Your task to perform on an android device: toggle improve location accuracy Image 0: 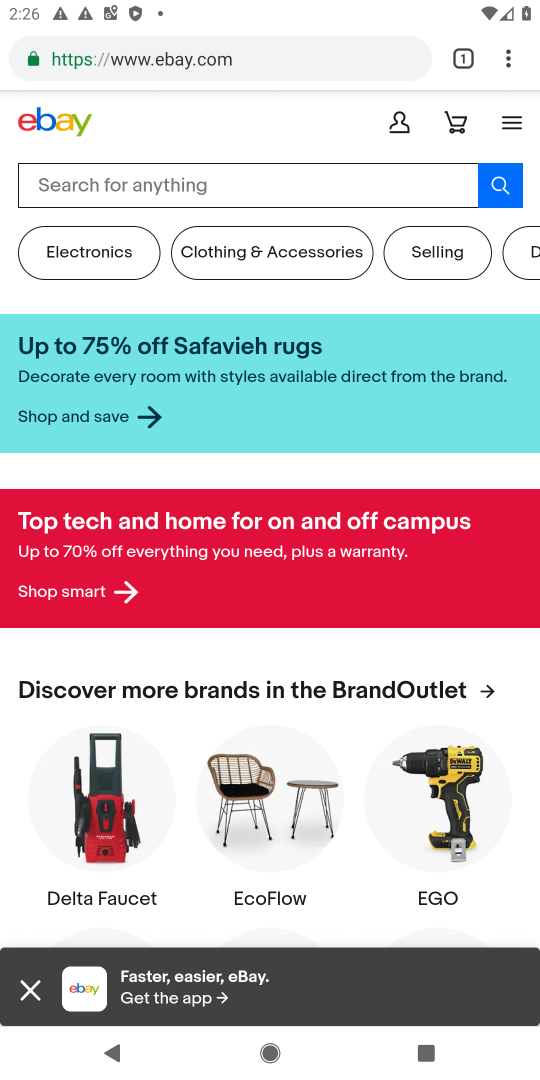
Step 0: press home button
Your task to perform on an android device: toggle improve location accuracy Image 1: 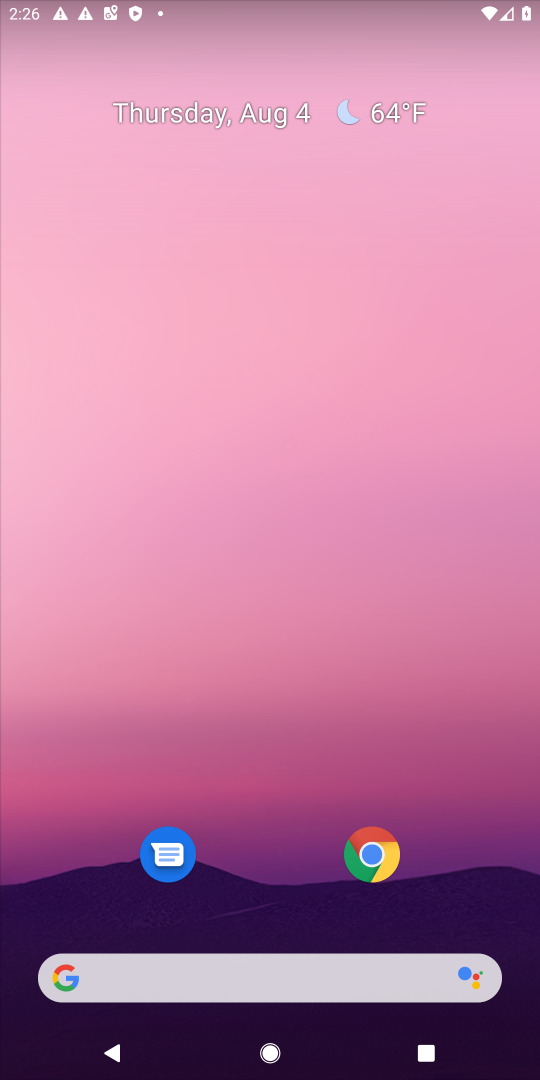
Step 1: drag from (185, 786) to (180, 421)
Your task to perform on an android device: toggle improve location accuracy Image 2: 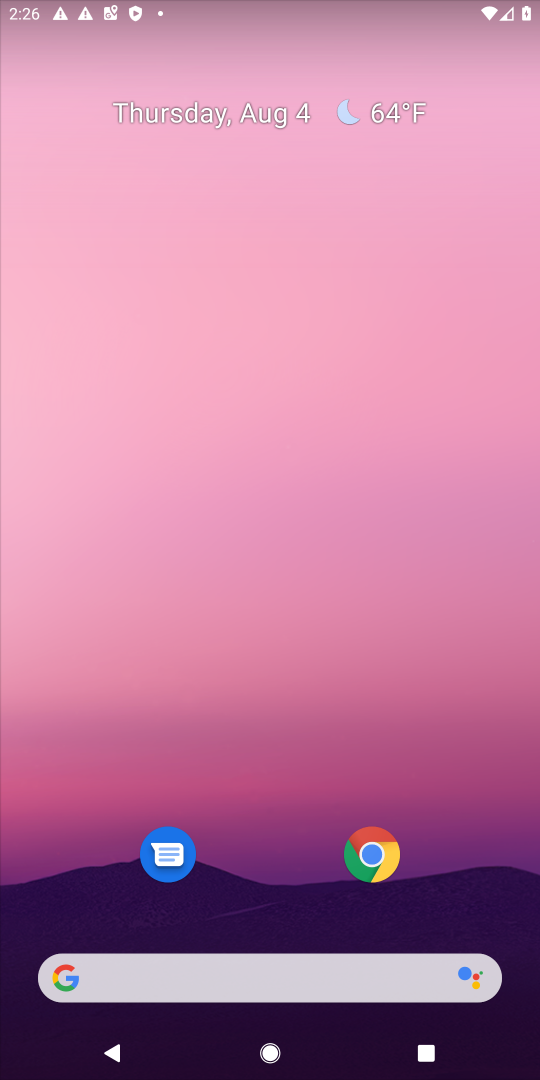
Step 2: drag from (342, 913) to (323, 181)
Your task to perform on an android device: toggle improve location accuracy Image 3: 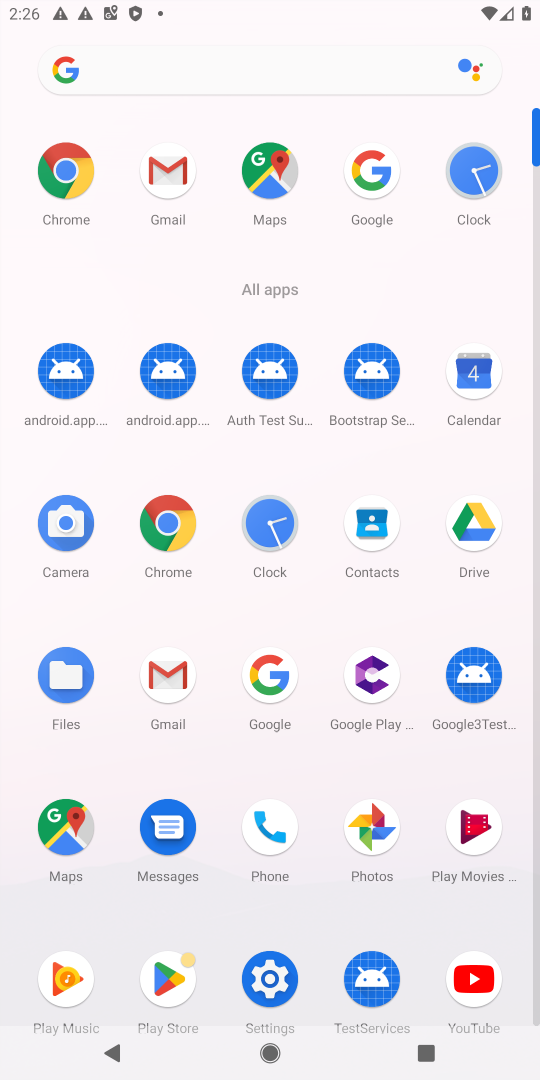
Step 3: click (272, 981)
Your task to perform on an android device: toggle improve location accuracy Image 4: 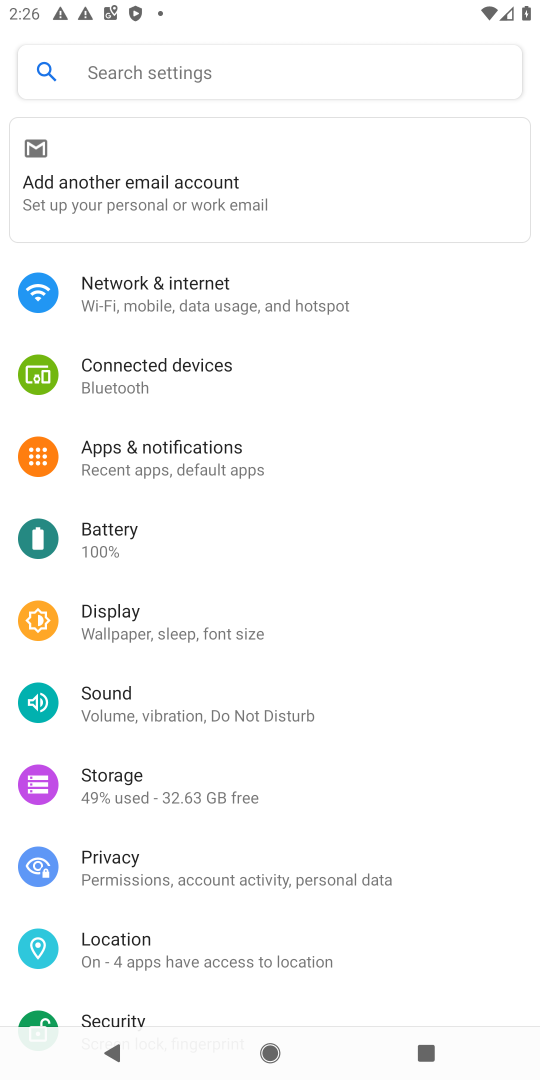
Step 4: click (122, 954)
Your task to perform on an android device: toggle improve location accuracy Image 5: 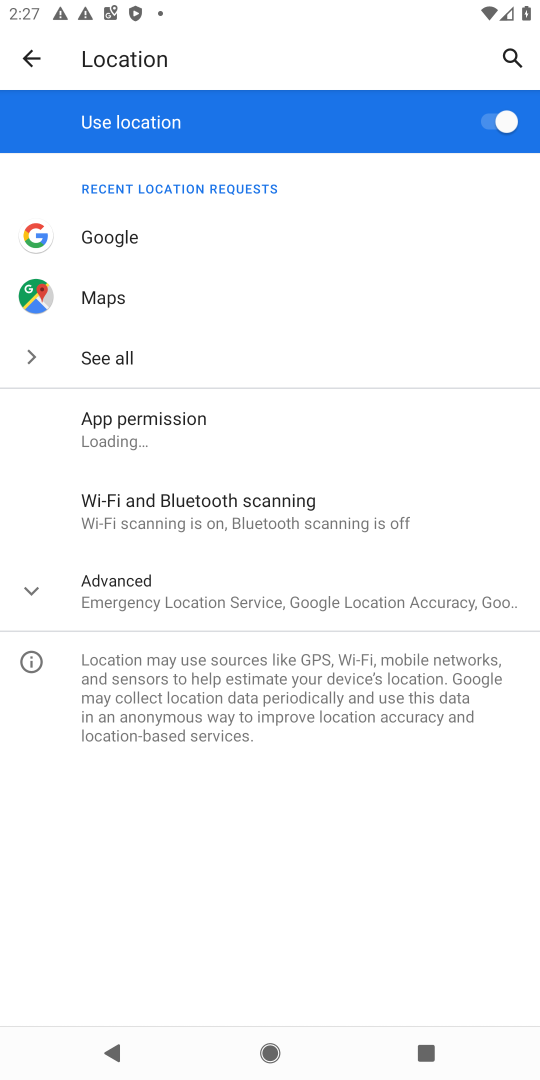
Step 5: click (115, 599)
Your task to perform on an android device: toggle improve location accuracy Image 6: 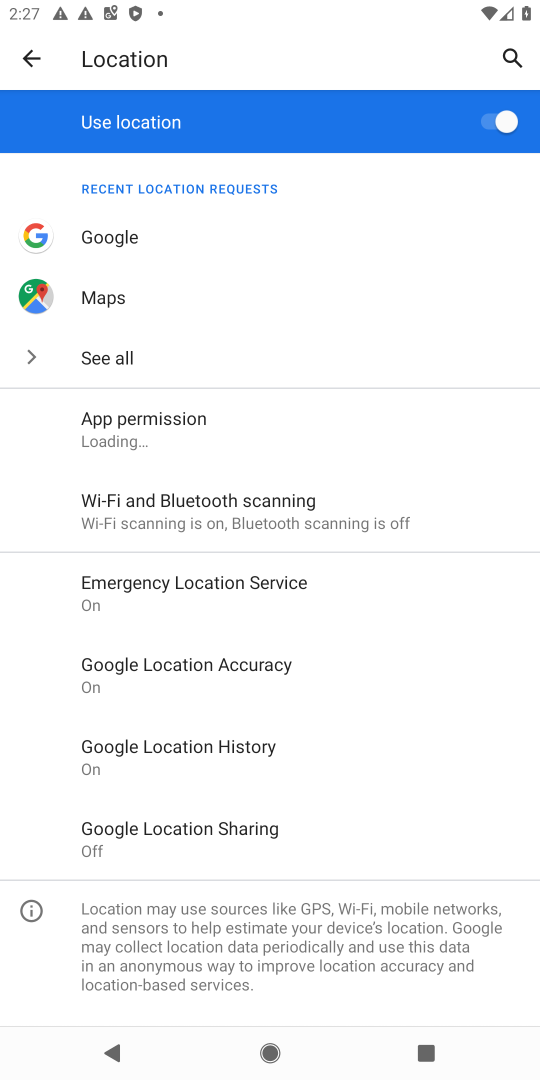
Step 6: click (184, 666)
Your task to perform on an android device: toggle improve location accuracy Image 7: 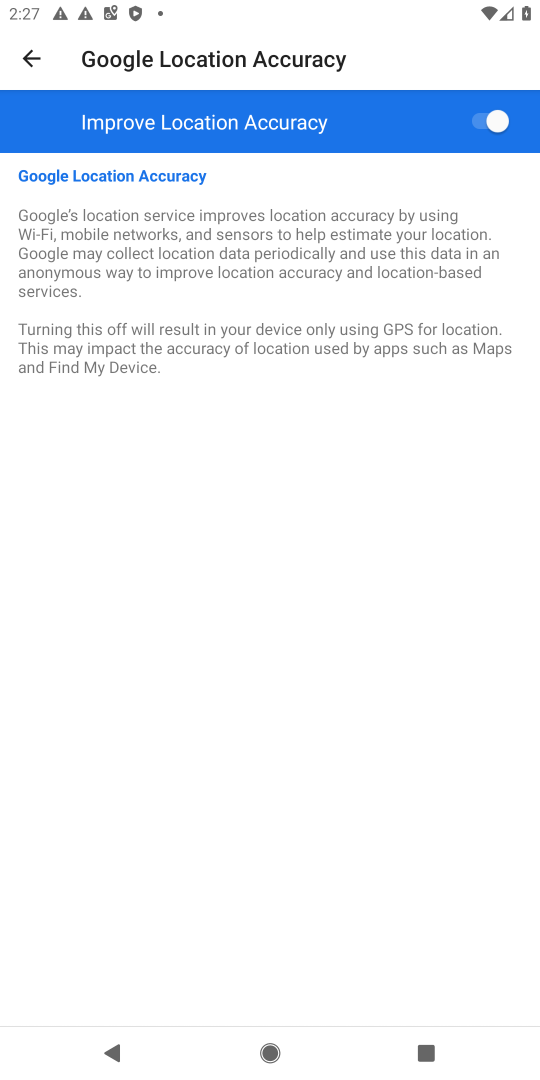
Step 7: click (482, 122)
Your task to perform on an android device: toggle improve location accuracy Image 8: 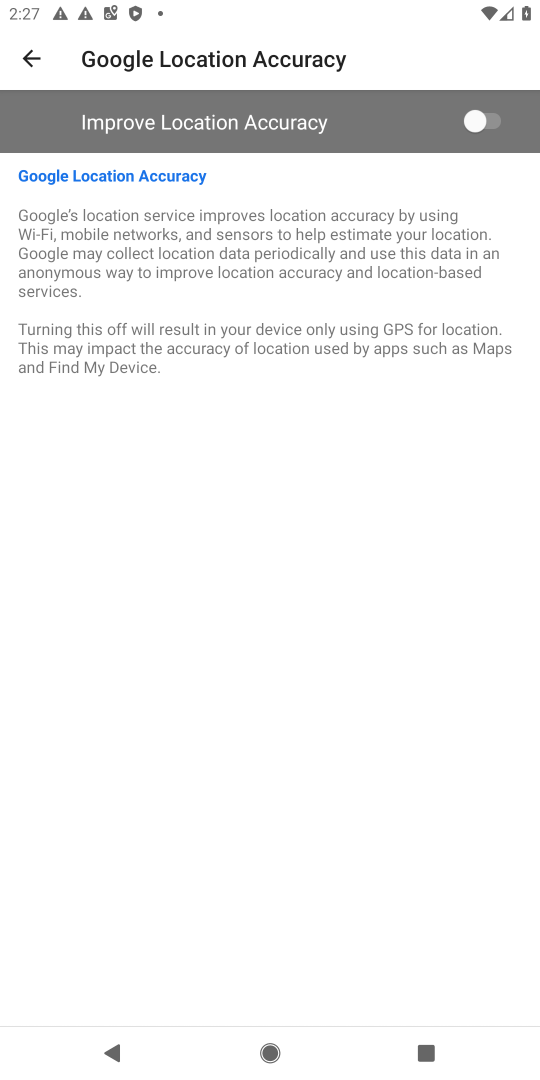
Step 8: task complete